Your task to perform on an android device: delete location history Image 0: 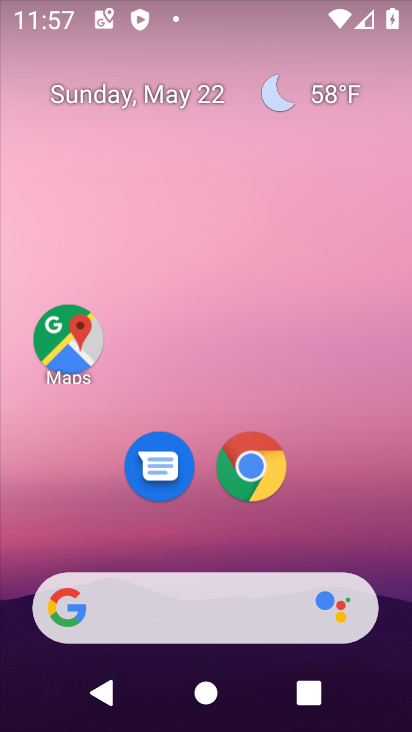
Step 0: drag from (241, 523) to (230, 97)
Your task to perform on an android device: delete location history Image 1: 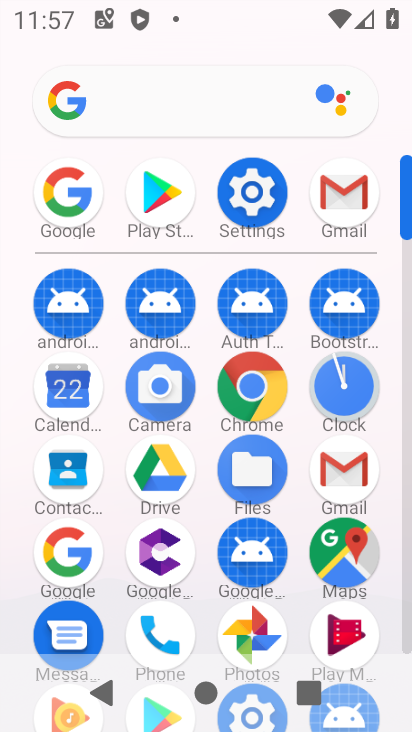
Step 1: click (241, 184)
Your task to perform on an android device: delete location history Image 2: 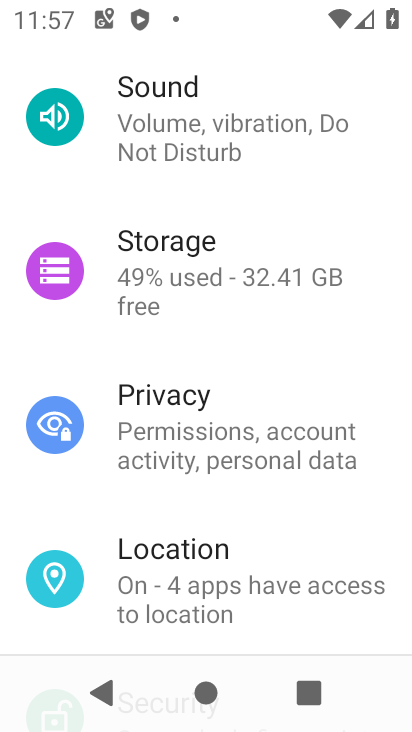
Step 2: click (211, 573)
Your task to perform on an android device: delete location history Image 3: 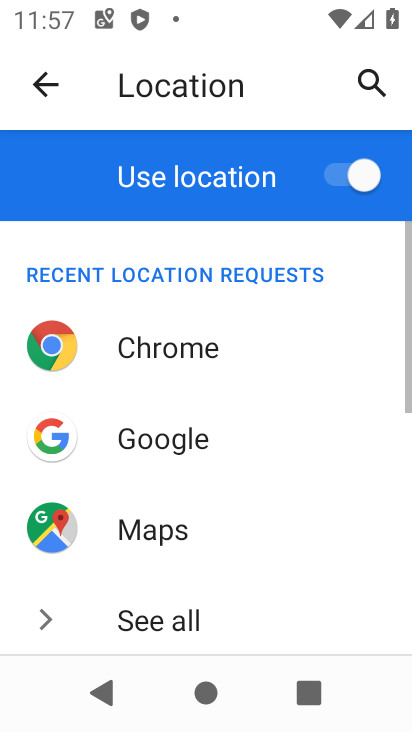
Step 3: drag from (284, 495) to (293, 108)
Your task to perform on an android device: delete location history Image 4: 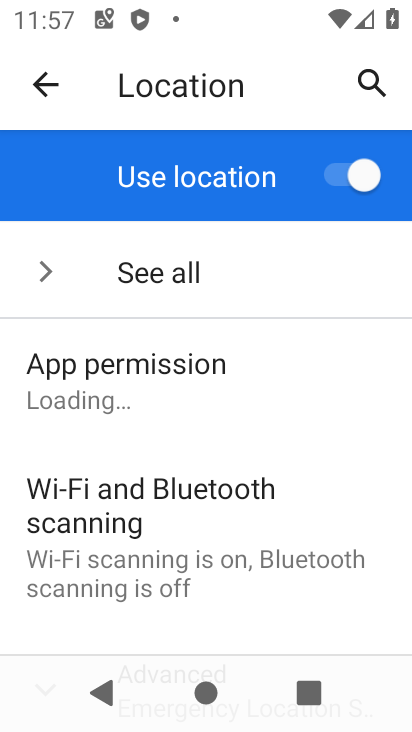
Step 4: drag from (252, 579) to (268, 244)
Your task to perform on an android device: delete location history Image 5: 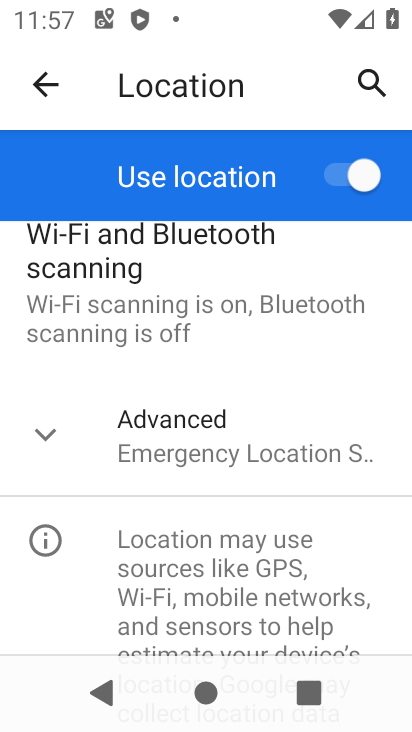
Step 5: click (154, 445)
Your task to perform on an android device: delete location history Image 6: 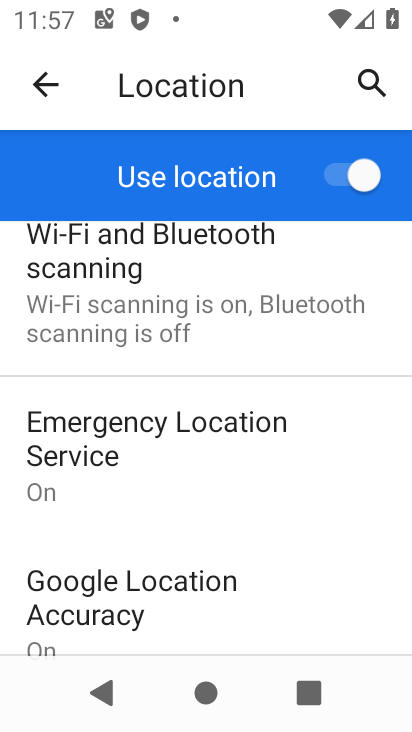
Step 6: drag from (242, 595) to (234, 235)
Your task to perform on an android device: delete location history Image 7: 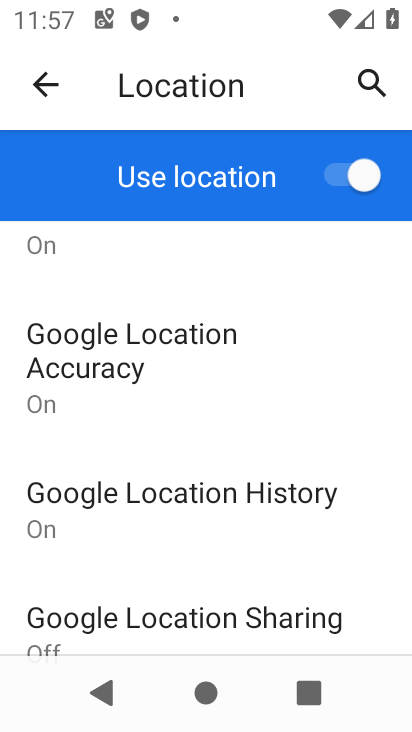
Step 7: click (143, 504)
Your task to perform on an android device: delete location history Image 8: 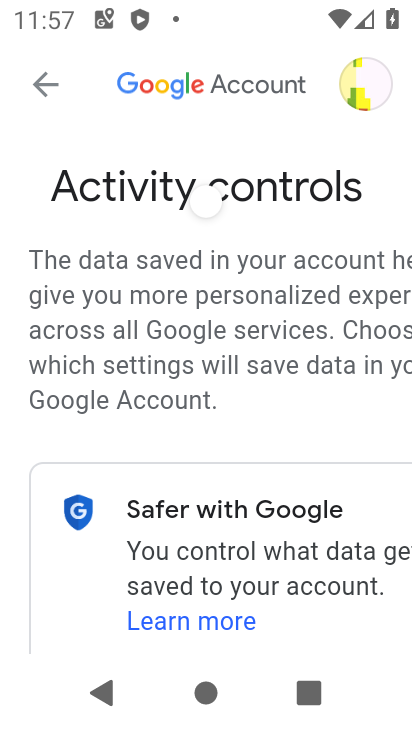
Step 8: drag from (212, 553) to (238, 125)
Your task to perform on an android device: delete location history Image 9: 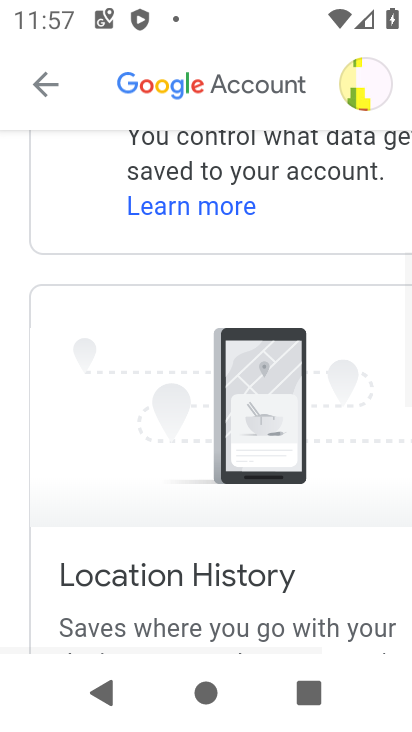
Step 9: drag from (171, 633) to (173, 274)
Your task to perform on an android device: delete location history Image 10: 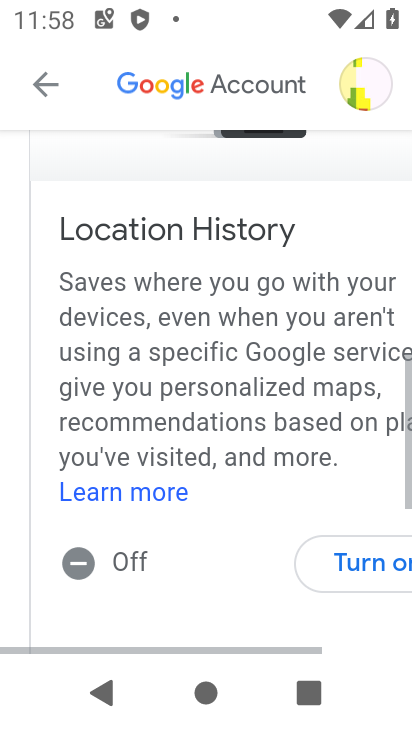
Step 10: drag from (222, 402) to (232, 269)
Your task to perform on an android device: delete location history Image 11: 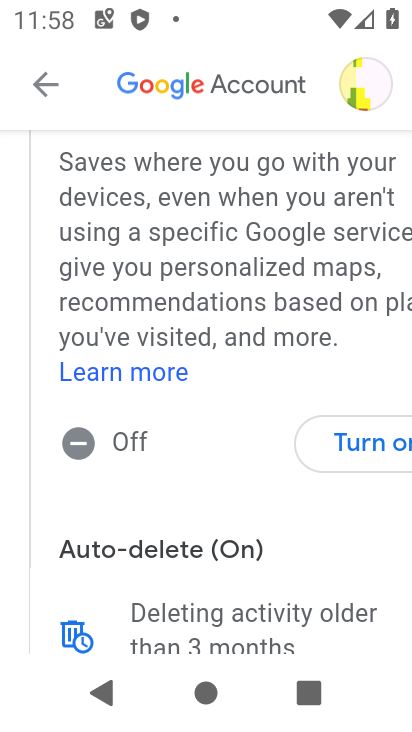
Step 11: click (79, 630)
Your task to perform on an android device: delete location history Image 12: 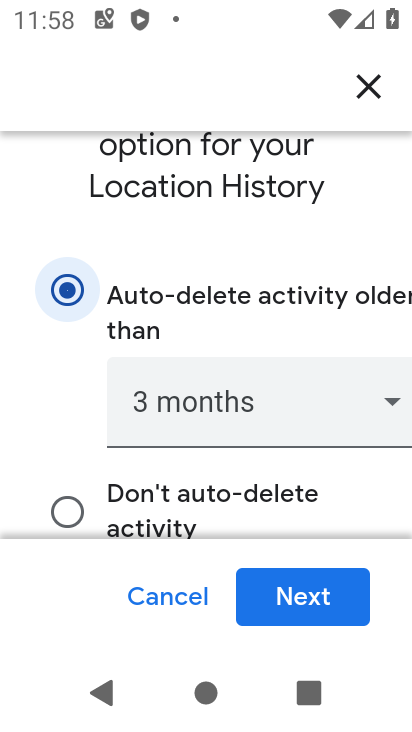
Step 12: click (306, 606)
Your task to perform on an android device: delete location history Image 13: 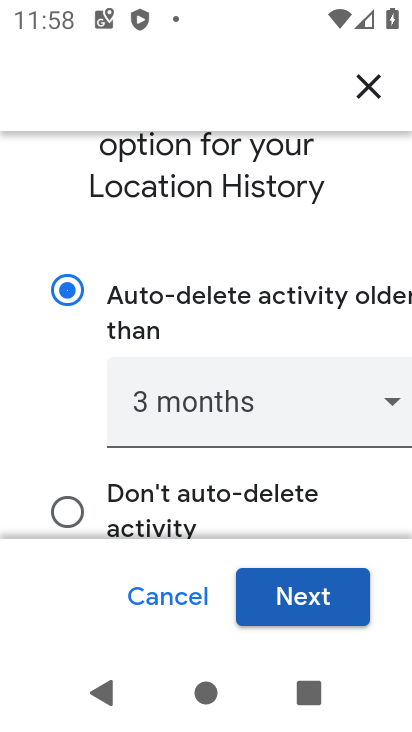
Step 13: click (291, 599)
Your task to perform on an android device: delete location history Image 14: 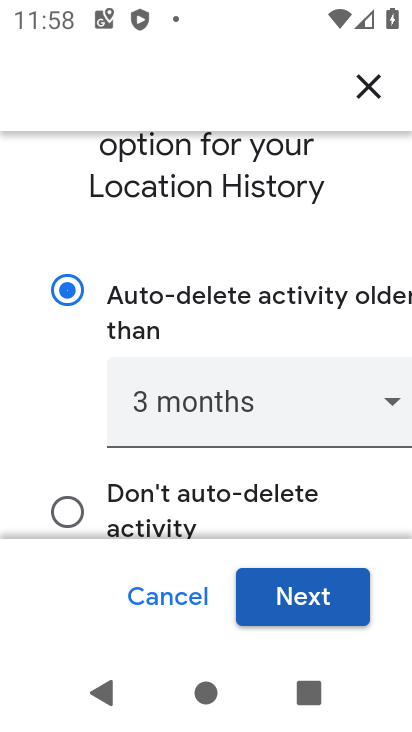
Step 14: task complete